Your task to perform on an android device: turn on translation in the chrome app Image 0: 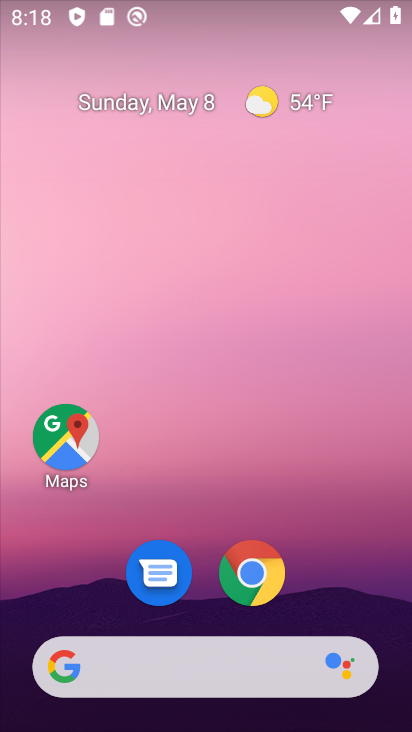
Step 0: click (255, 567)
Your task to perform on an android device: turn on translation in the chrome app Image 1: 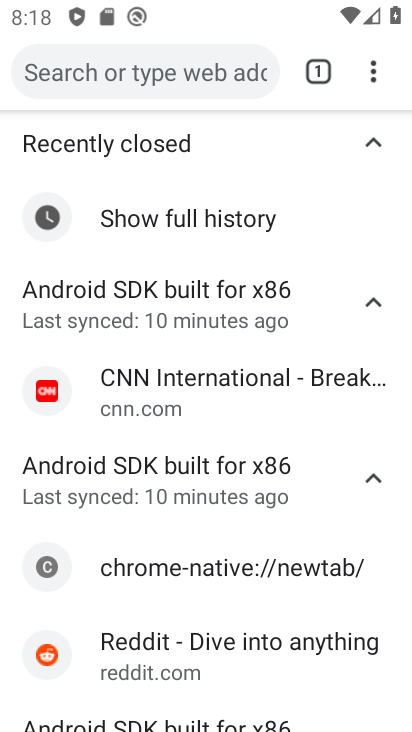
Step 1: click (370, 78)
Your task to perform on an android device: turn on translation in the chrome app Image 2: 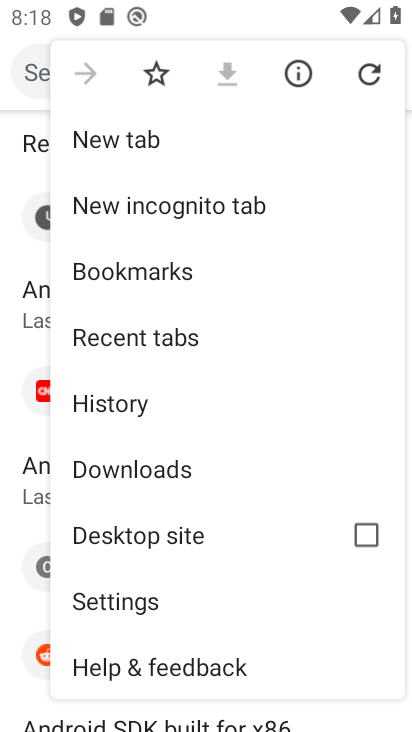
Step 2: click (137, 596)
Your task to perform on an android device: turn on translation in the chrome app Image 3: 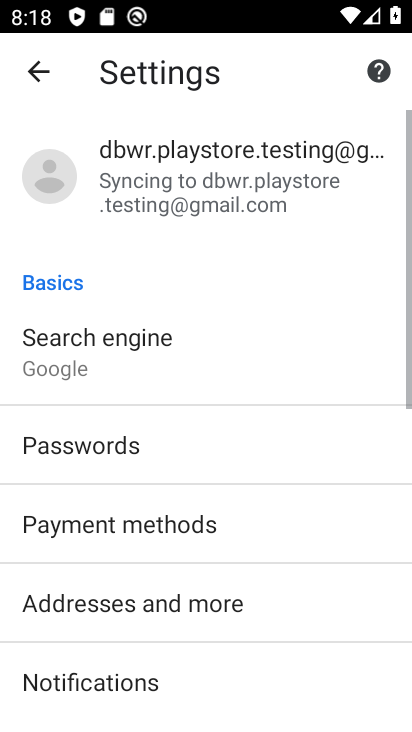
Step 3: drag from (150, 683) to (174, 403)
Your task to perform on an android device: turn on translation in the chrome app Image 4: 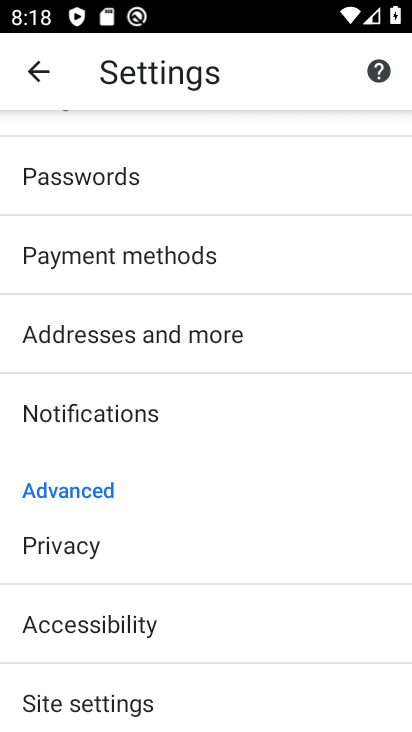
Step 4: drag from (181, 689) to (180, 433)
Your task to perform on an android device: turn on translation in the chrome app Image 5: 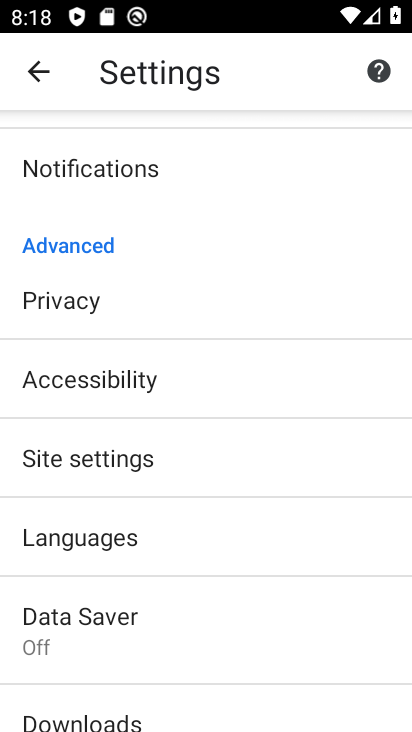
Step 5: click (67, 534)
Your task to perform on an android device: turn on translation in the chrome app Image 6: 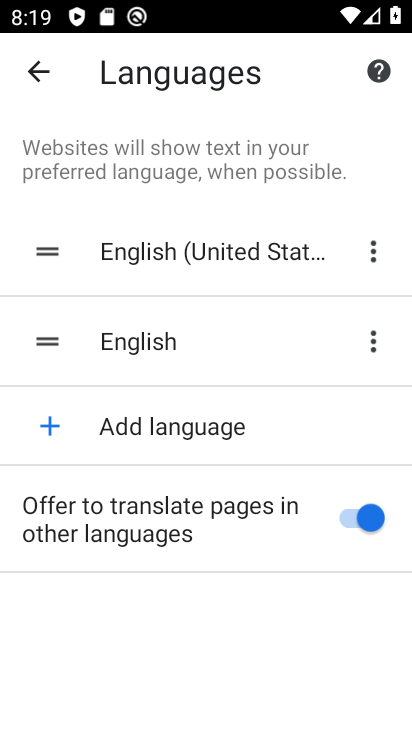
Step 6: task complete